Your task to perform on an android device: Go to settings Image 0: 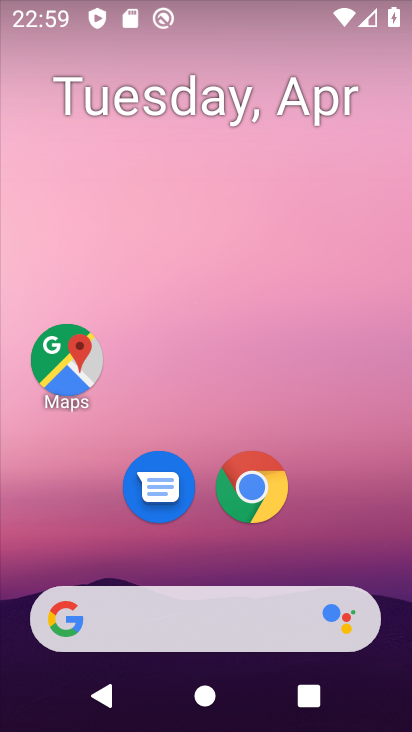
Step 0: drag from (180, 618) to (115, 11)
Your task to perform on an android device: Go to settings Image 1: 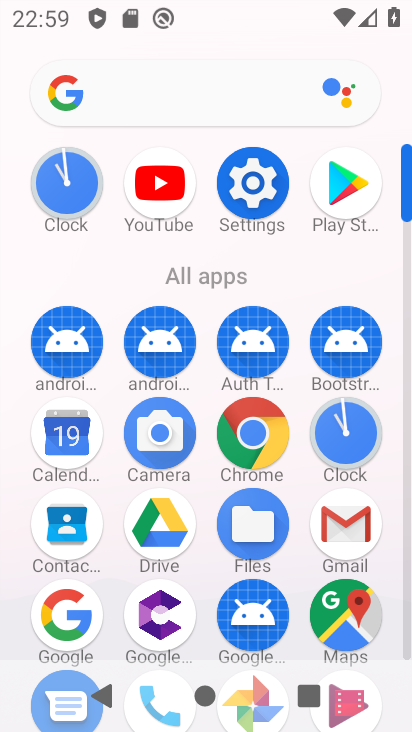
Step 1: click (256, 197)
Your task to perform on an android device: Go to settings Image 2: 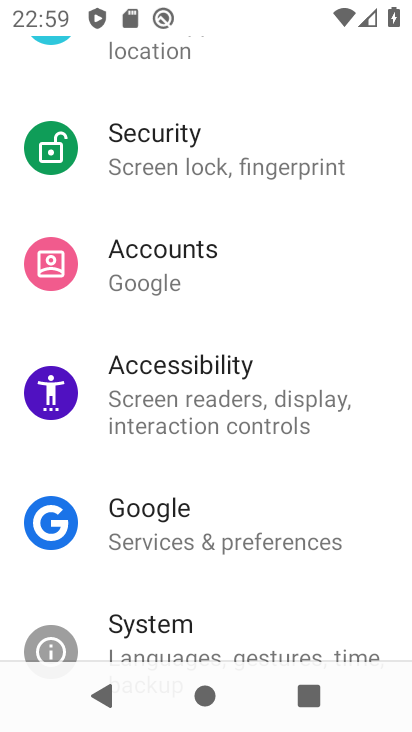
Step 2: task complete